Your task to perform on an android device: What's the weather like in Singapore? Image 0: 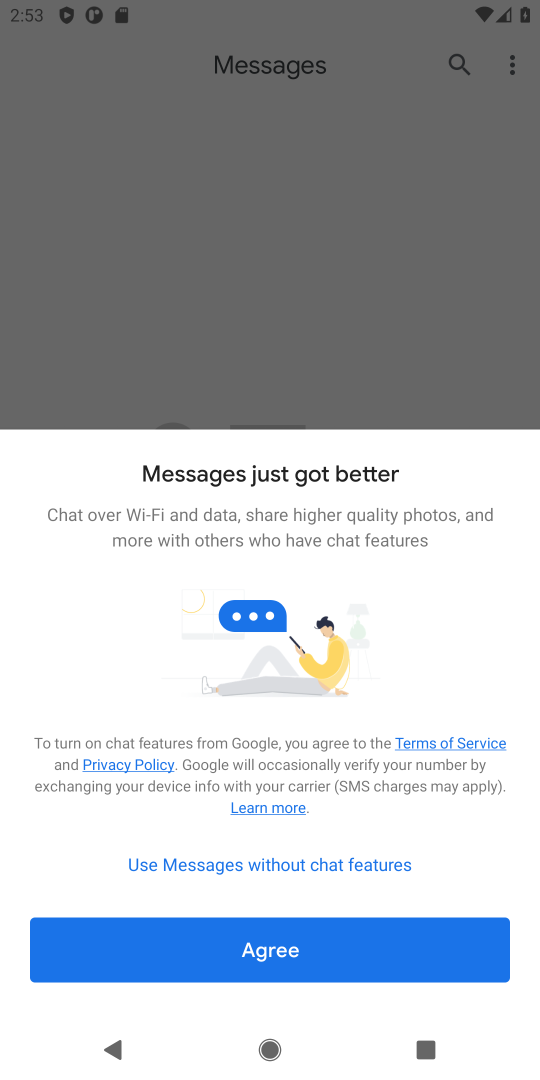
Step 0: press home button
Your task to perform on an android device: What's the weather like in Singapore? Image 1: 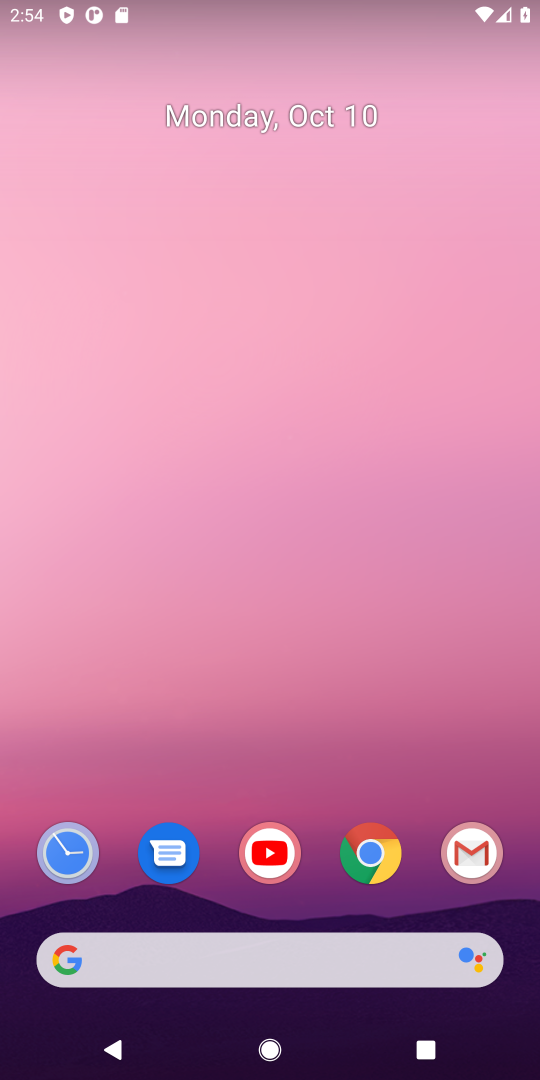
Step 1: click (373, 843)
Your task to perform on an android device: What's the weather like in Singapore? Image 2: 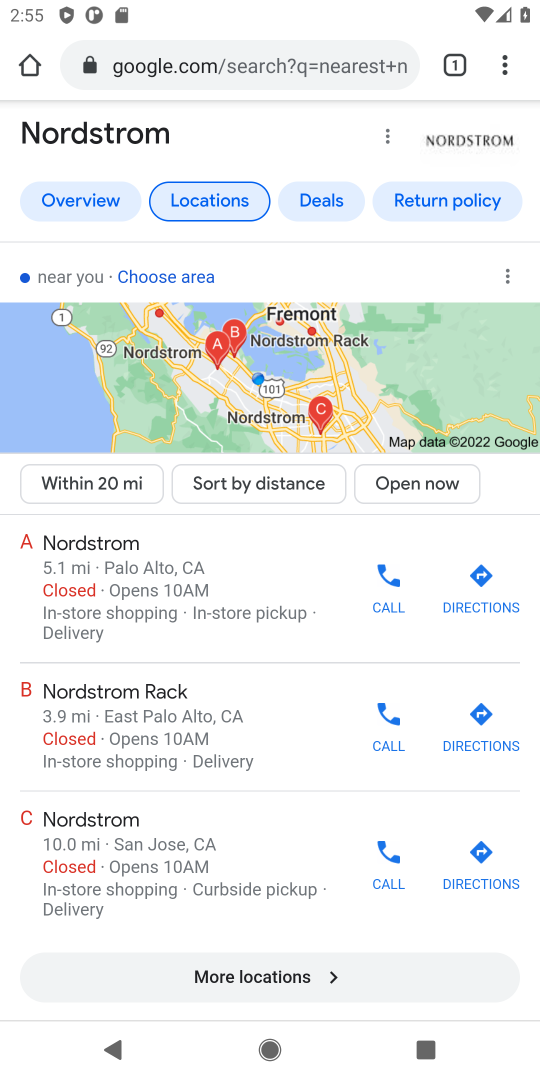
Step 2: click (265, 76)
Your task to perform on an android device: What's the weather like in Singapore? Image 3: 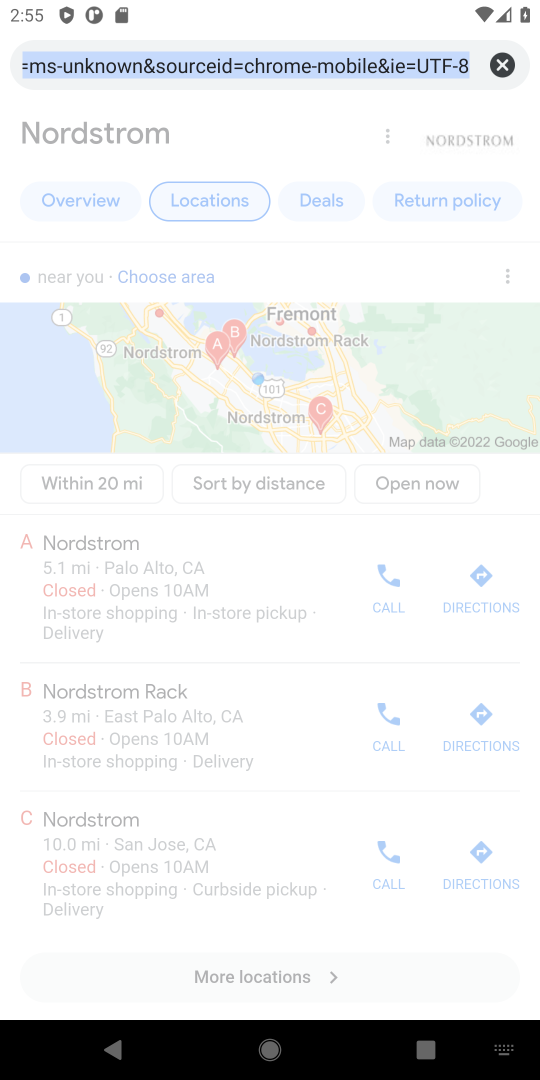
Step 3: type "weather in singapore"
Your task to perform on an android device: What's the weather like in Singapore? Image 4: 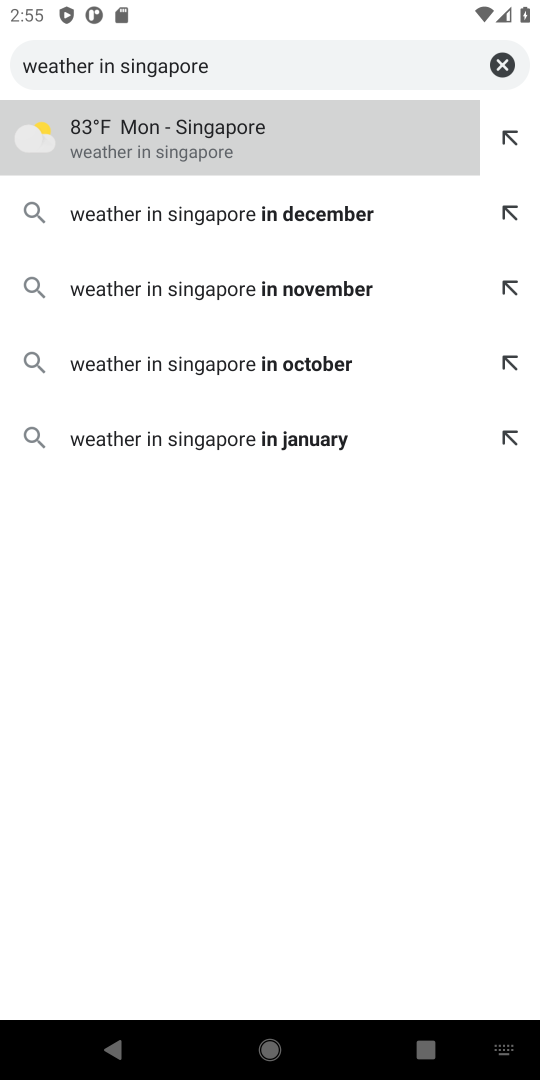
Step 4: click (398, 151)
Your task to perform on an android device: What's the weather like in Singapore? Image 5: 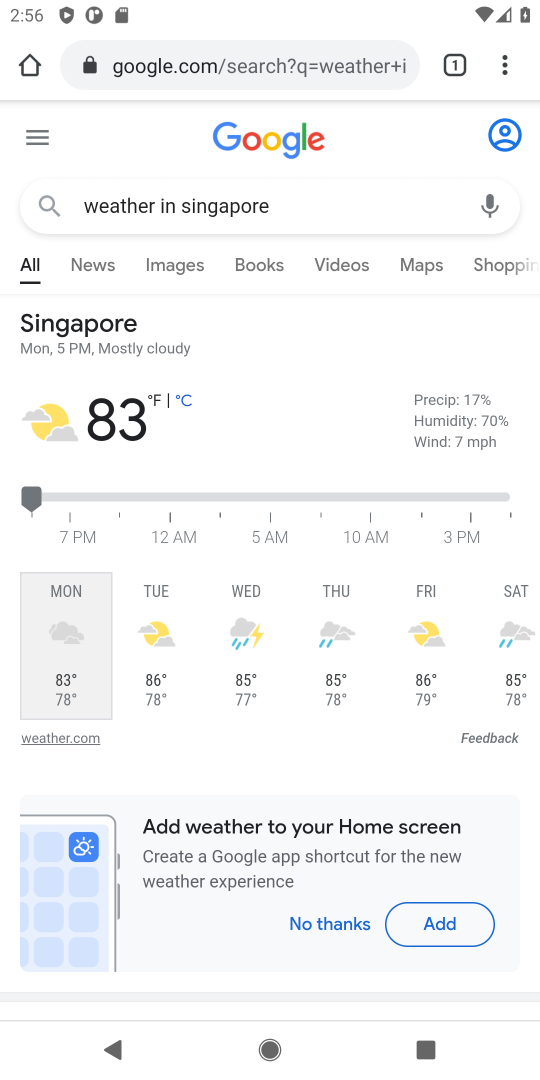
Step 5: click (315, 442)
Your task to perform on an android device: What's the weather like in Singapore? Image 6: 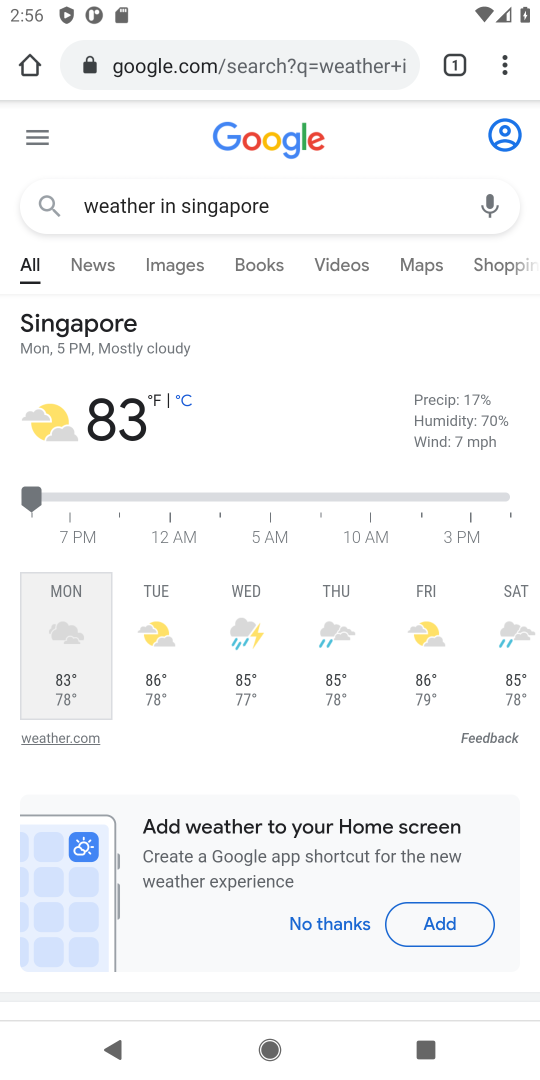
Step 6: task complete